Your task to perform on an android device: open app "Microsoft Excel" Image 0: 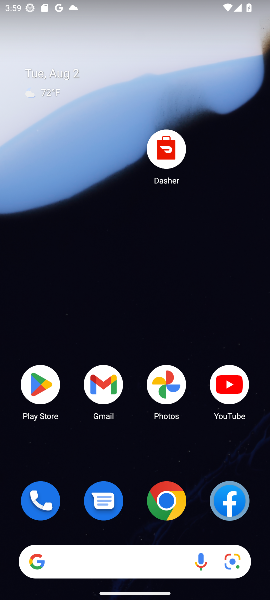
Step 0: click (36, 387)
Your task to perform on an android device: open app "Microsoft Excel" Image 1: 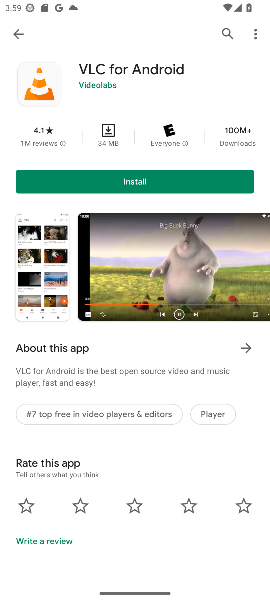
Step 1: click (220, 35)
Your task to perform on an android device: open app "Microsoft Excel" Image 2: 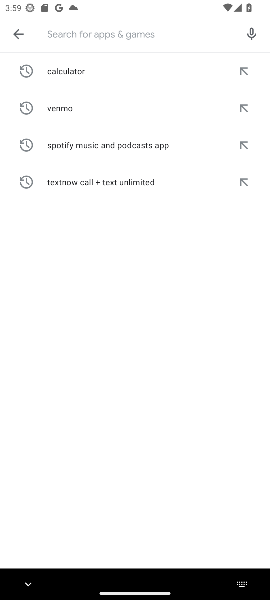
Step 2: type "Microsoft Excel"
Your task to perform on an android device: open app "Microsoft Excel" Image 3: 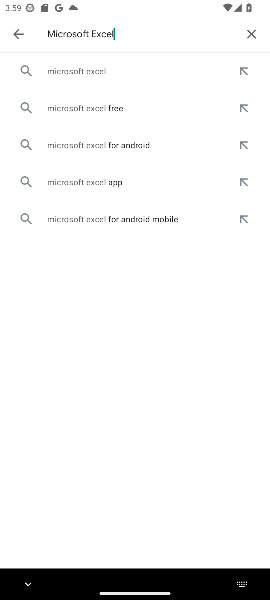
Step 3: click (74, 75)
Your task to perform on an android device: open app "Microsoft Excel" Image 4: 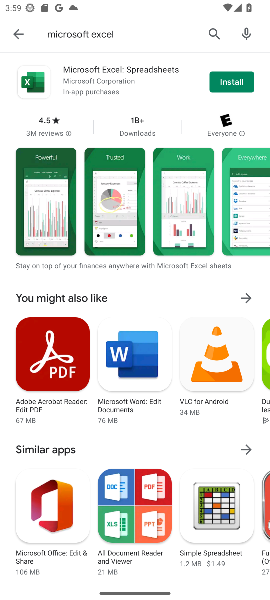
Step 4: task complete